Your task to perform on an android device: change notification settings in the gmail app Image 0: 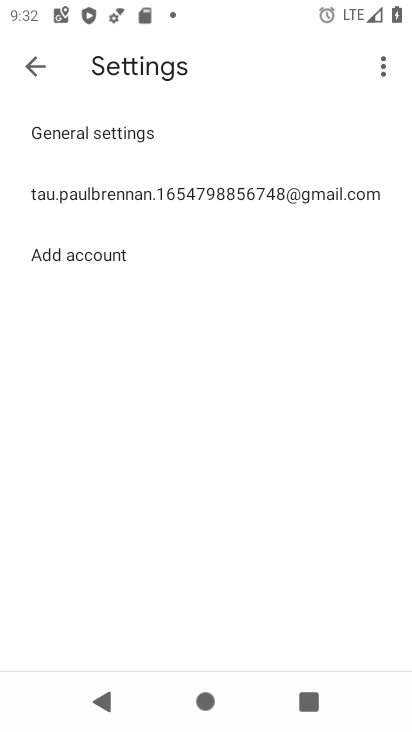
Step 0: click (329, 196)
Your task to perform on an android device: change notification settings in the gmail app Image 1: 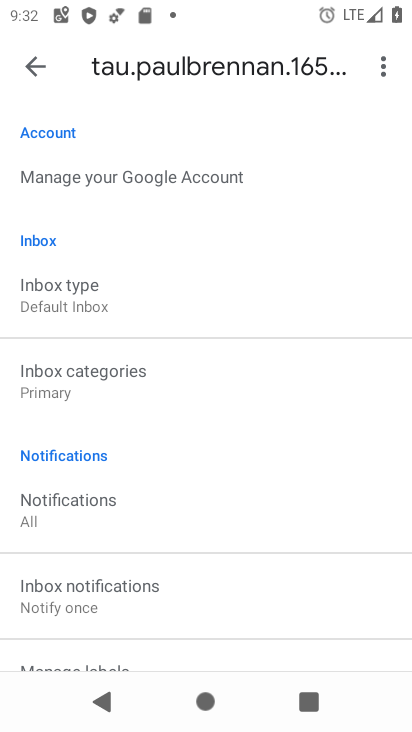
Step 1: drag from (158, 611) to (221, 189)
Your task to perform on an android device: change notification settings in the gmail app Image 2: 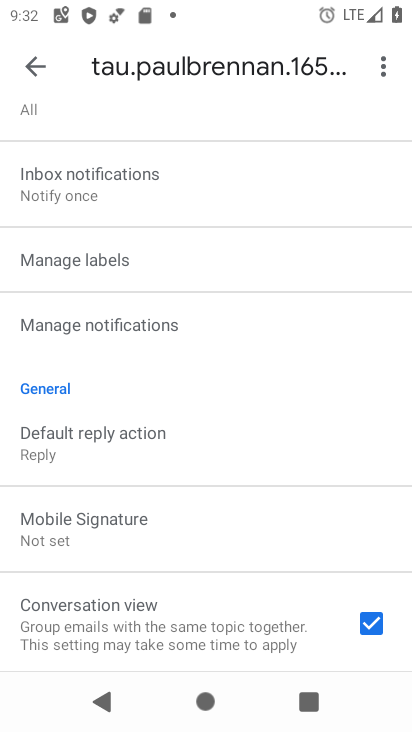
Step 2: click (181, 327)
Your task to perform on an android device: change notification settings in the gmail app Image 3: 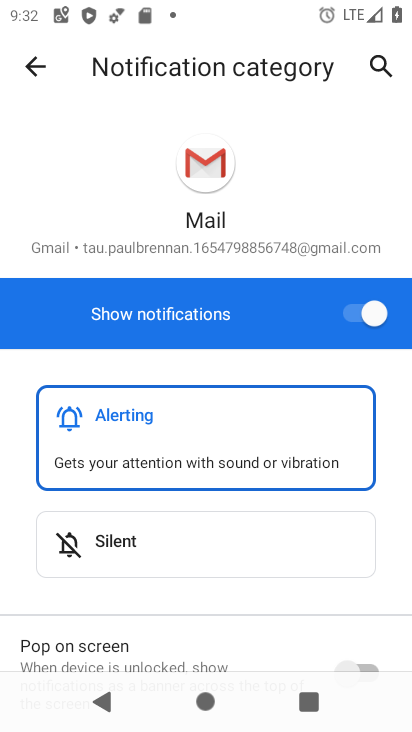
Step 3: click (365, 309)
Your task to perform on an android device: change notification settings in the gmail app Image 4: 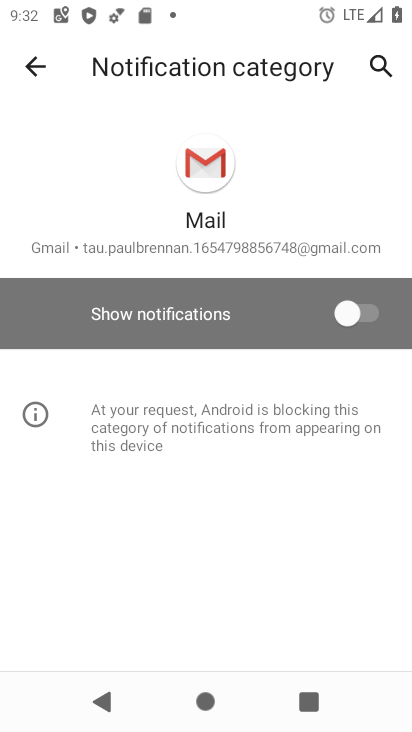
Step 4: task complete